Your task to perform on an android device: Is it going to rain today? Image 0: 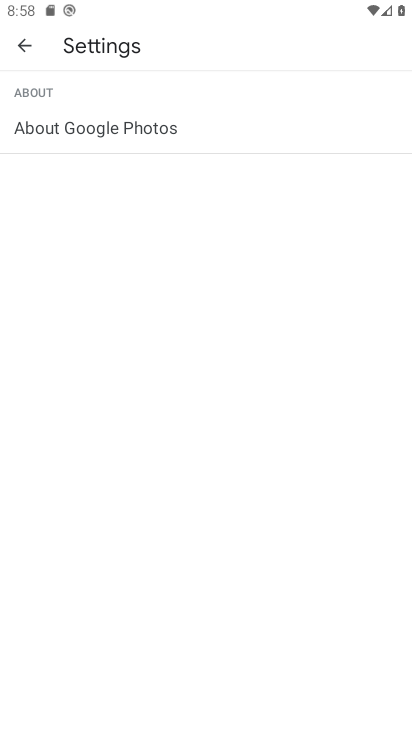
Step 0: press home button
Your task to perform on an android device: Is it going to rain today? Image 1: 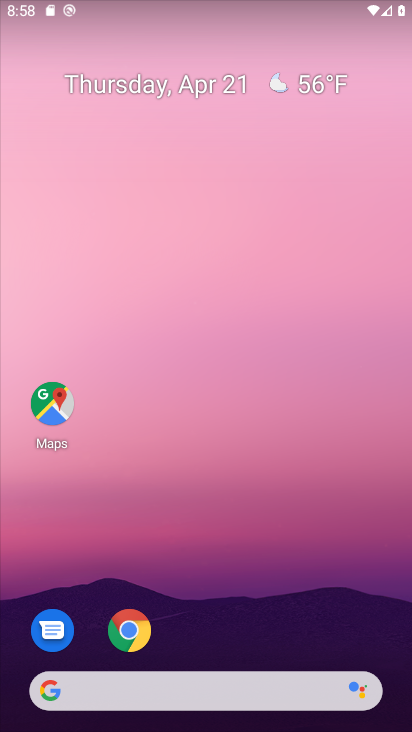
Step 1: click (188, 692)
Your task to perform on an android device: Is it going to rain today? Image 2: 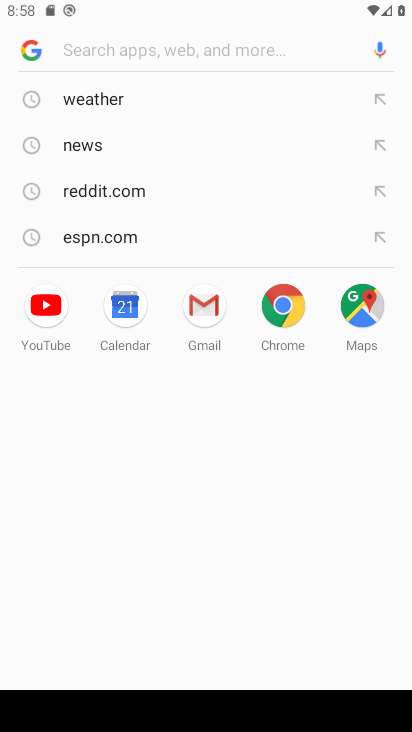
Step 2: click (100, 100)
Your task to perform on an android device: Is it going to rain today? Image 3: 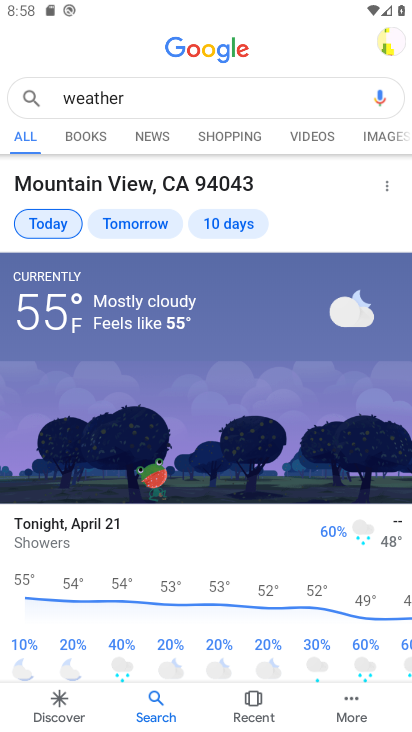
Step 3: click (180, 390)
Your task to perform on an android device: Is it going to rain today? Image 4: 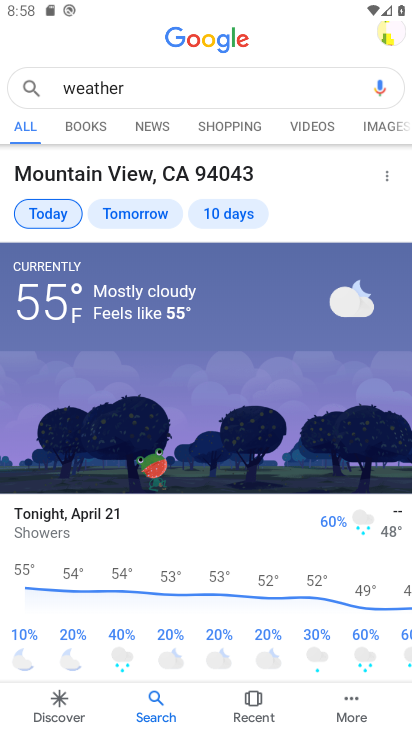
Step 4: task complete